Your task to perform on an android device: turn on the 24-hour format for clock Image 0: 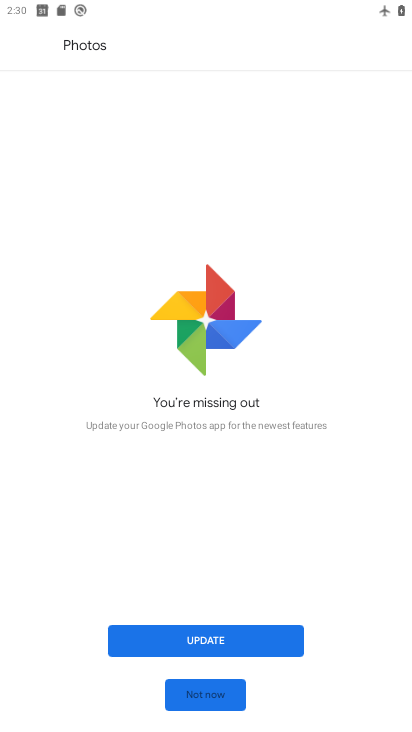
Step 0: press home button
Your task to perform on an android device: turn on the 24-hour format for clock Image 1: 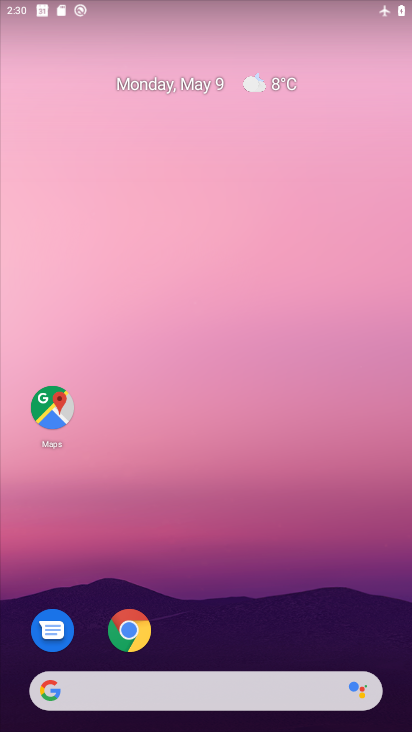
Step 1: drag from (279, 559) to (306, 32)
Your task to perform on an android device: turn on the 24-hour format for clock Image 2: 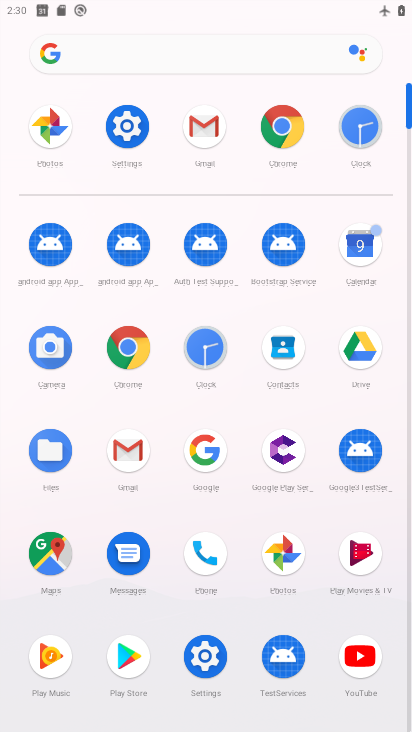
Step 2: click (210, 675)
Your task to perform on an android device: turn on the 24-hour format for clock Image 3: 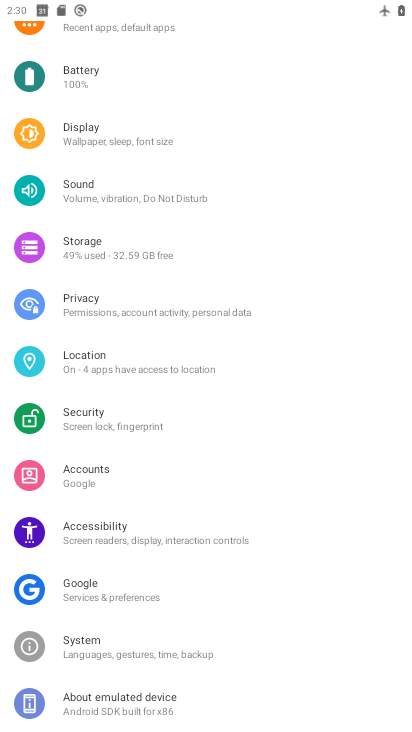
Step 3: click (116, 658)
Your task to perform on an android device: turn on the 24-hour format for clock Image 4: 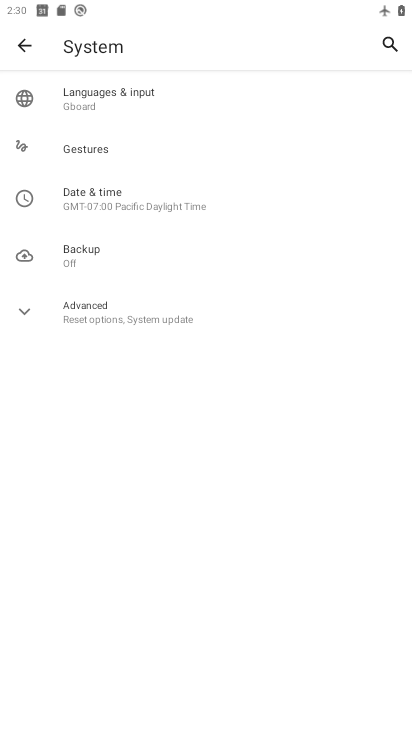
Step 4: click (105, 203)
Your task to perform on an android device: turn on the 24-hour format for clock Image 5: 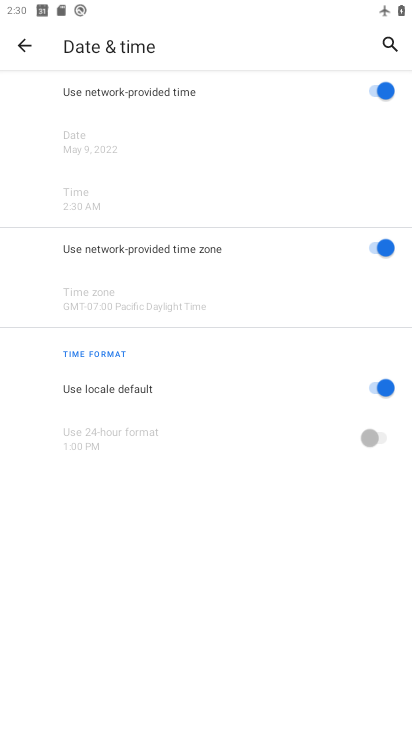
Step 5: click (384, 435)
Your task to perform on an android device: turn on the 24-hour format for clock Image 6: 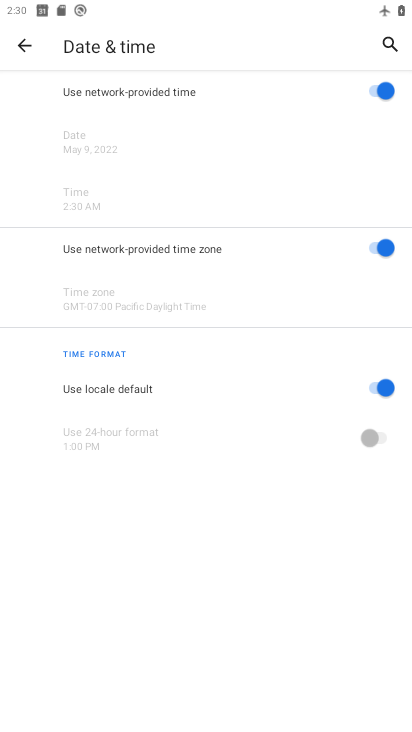
Step 6: click (372, 376)
Your task to perform on an android device: turn on the 24-hour format for clock Image 7: 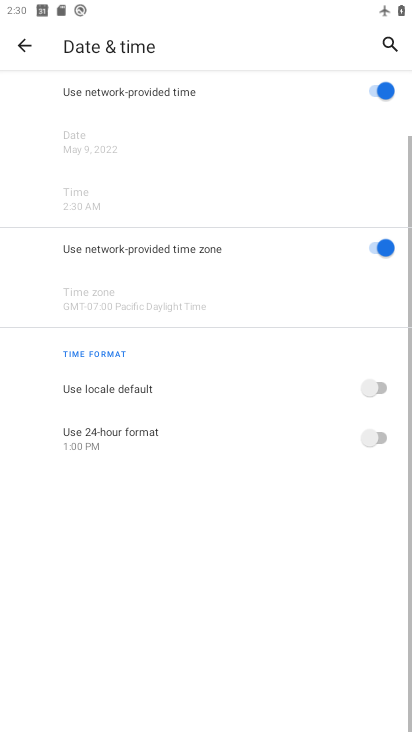
Step 7: click (387, 432)
Your task to perform on an android device: turn on the 24-hour format for clock Image 8: 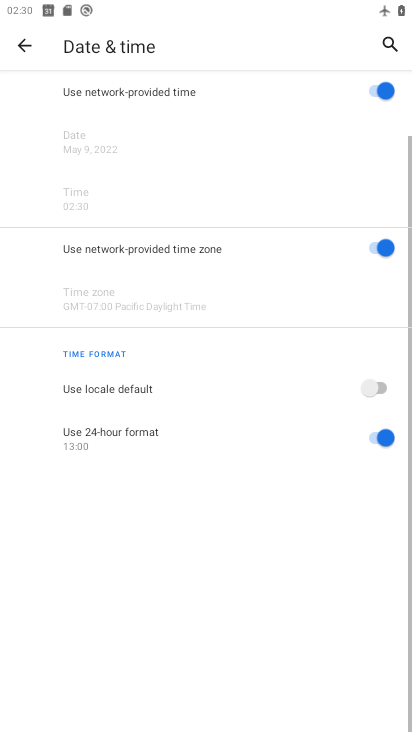
Step 8: task complete